Your task to perform on an android device: turn off picture-in-picture Image 0: 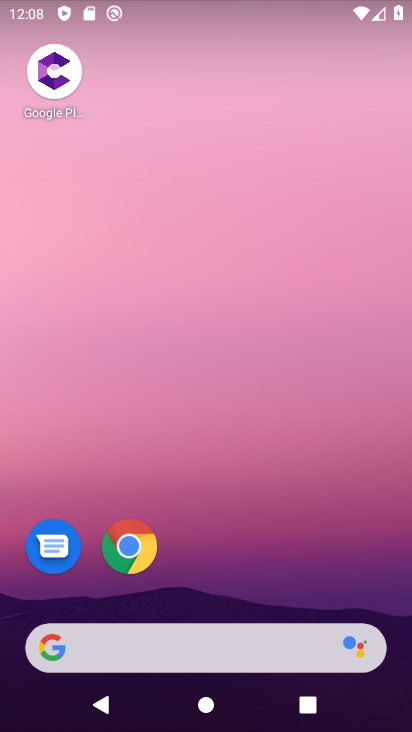
Step 0: drag from (305, 645) to (228, 0)
Your task to perform on an android device: turn off picture-in-picture Image 1: 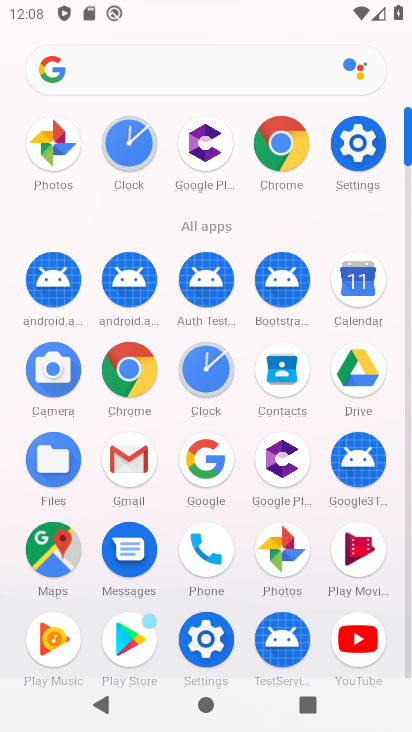
Step 1: drag from (175, 419) to (197, 174)
Your task to perform on an android device: turn off picture-in-picture Image 2: 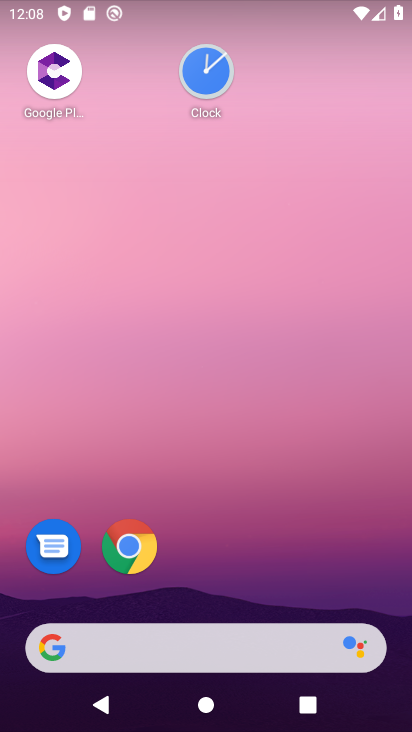
Step 2: drag from (305, 691) to (288, 103)
Your task to perform on an android device: turn off picture-in-picture Image 3: 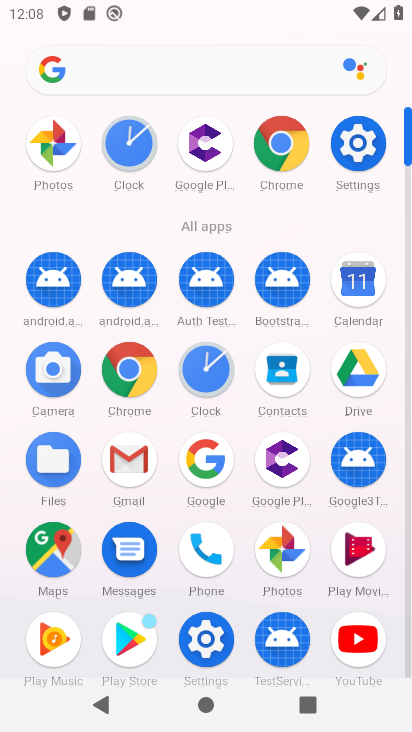
Step 3: click (214, 632)
Your task to perform on an android device: turn off picture-in-picture Image 4: 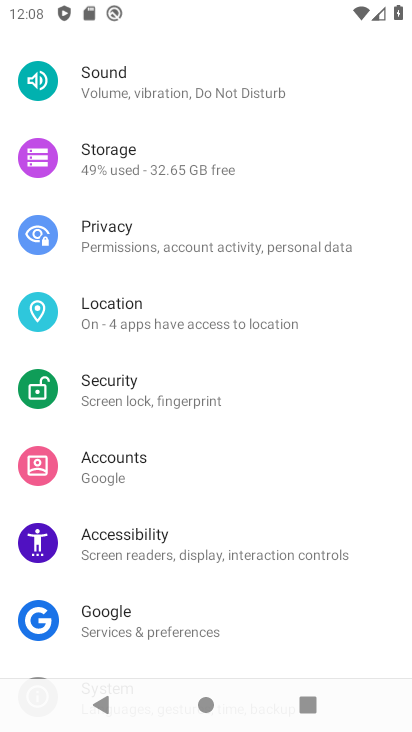
Step 4: drag from (294, 195) to (285, 650)
Your task to perform on an android device: turn off picture-in-picture Image 5: 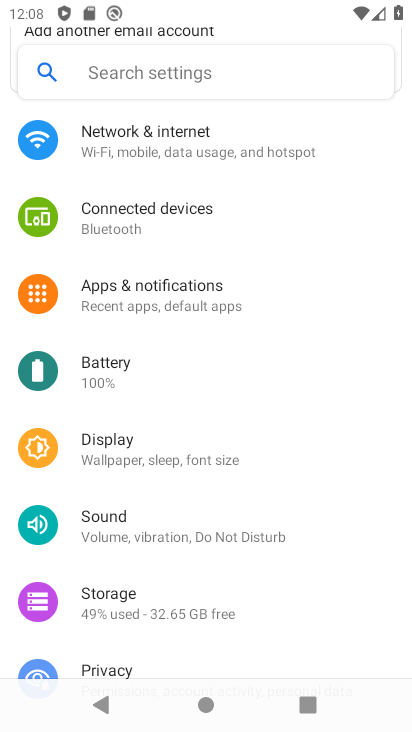
Step 5: drag from (250, 218) to (279, 537)
Your task to perform on an android device: turn off picture-in-picture Image 6: 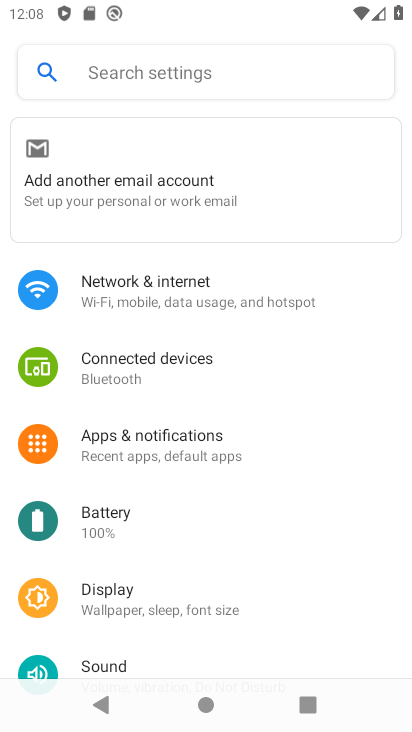
Step 6: click (209, 444)
Your task to perform on an android device: turn off picture-in-picture Image 7: 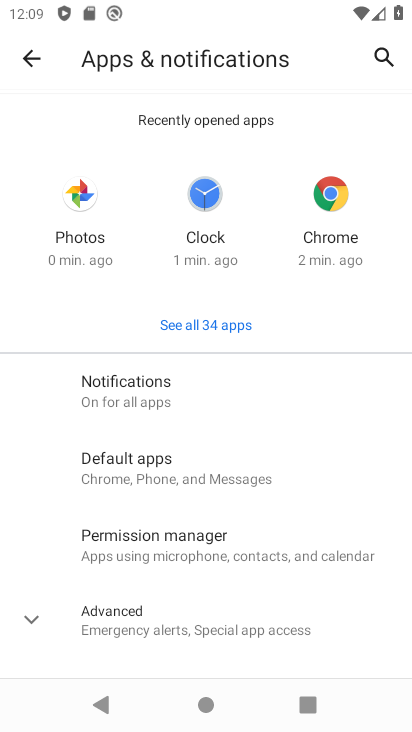
Step 7: drag from (232, 583) to (259, 407)
Your task to perform on an android device: turn off picture-in-picture Image 8: 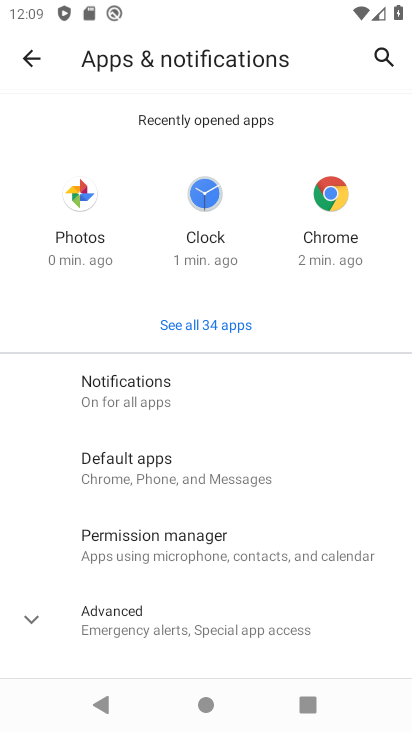
Step 8: click (207, 627)
Your task to perform on an android device: turn off picture-in-picture Image 9: 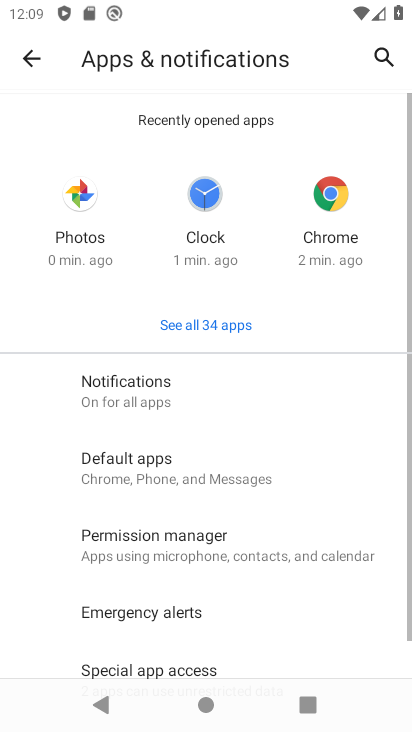
Step 9: drag from (195, 652) to (251, 469)
Your task to perform on an android device: turn off picture-in-picture Image 10: 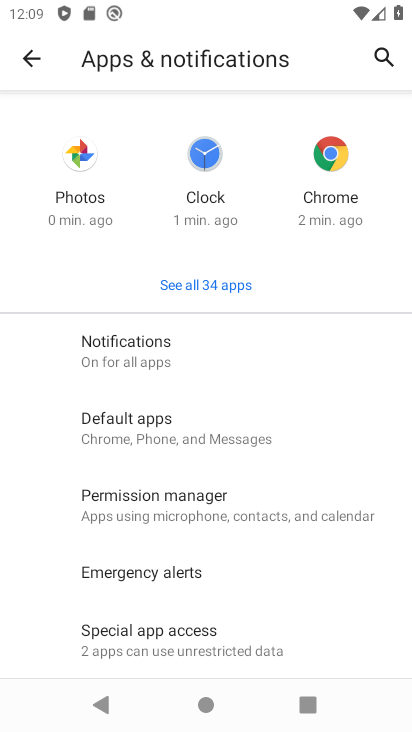
Step 10: click (190, 639)
Your task to perform on an android device: turn off picture-in-picture Image 11: 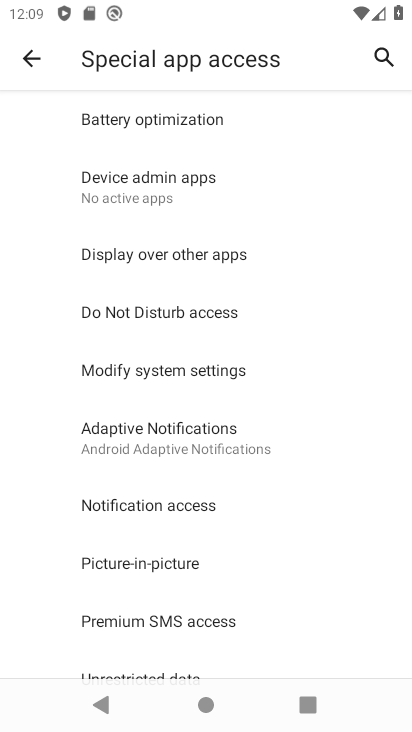
Step 11: click (187, 569)
Your task to perform on an android device: turn off picture-in-picture Image 12: 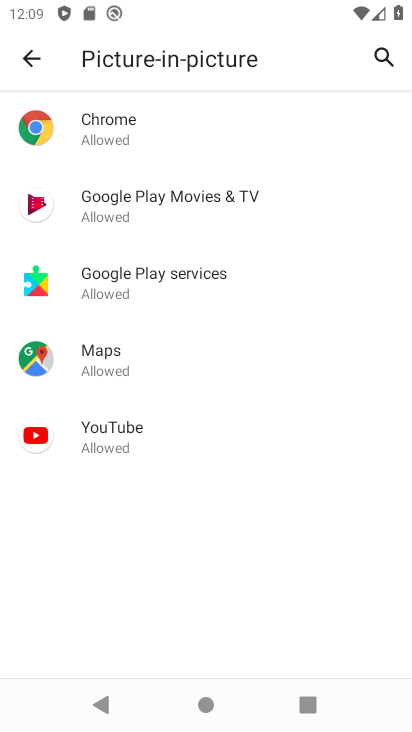
Step 12: click (113, 125)
Your task to perform on an android device: turn off picture-in-picture Image 13: 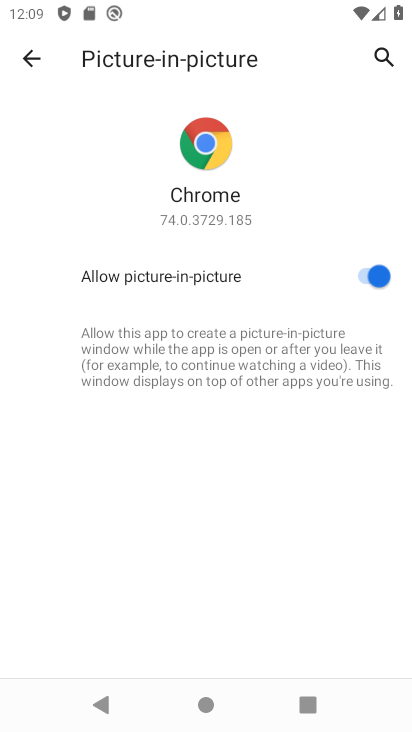
Step 13: click (379, 269)
Your task to perform on an android device: turn off picture-in-picture Image 14: 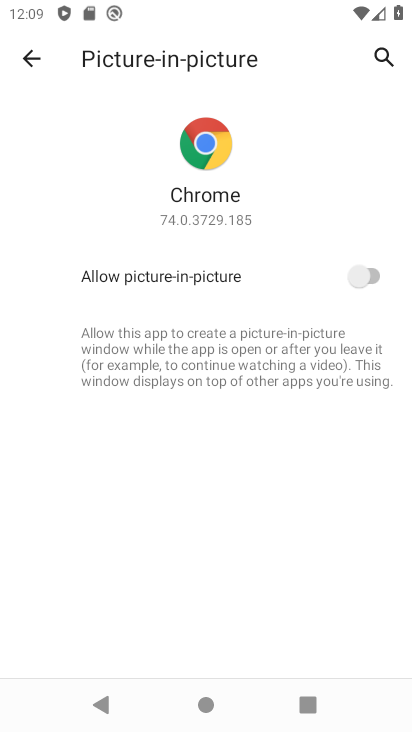
Step 14: press back button
Your task to perform on an android device: turn off picture-in-picture Image 15: 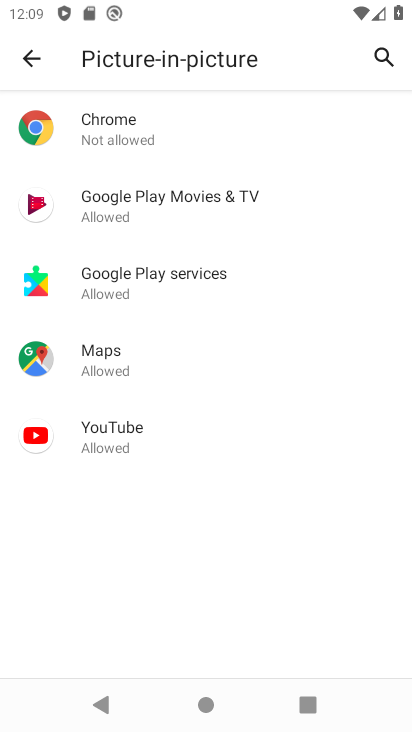
Step 15: click (153, 284)
Your task to perform on an android device: turn off picture-in-picture Image 16: 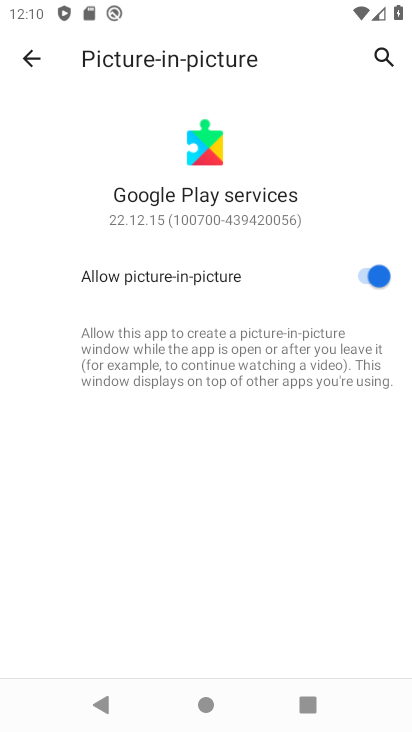
Step 16: click (363, 279)
Your task to perform on an android device: turn off picture-in-picture Image 17: 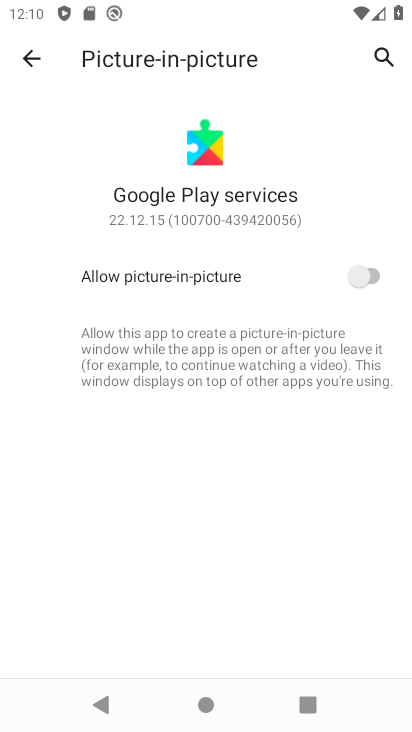
Step 17: task complete